Your task to perform on an android device: Open eBay Image 0: 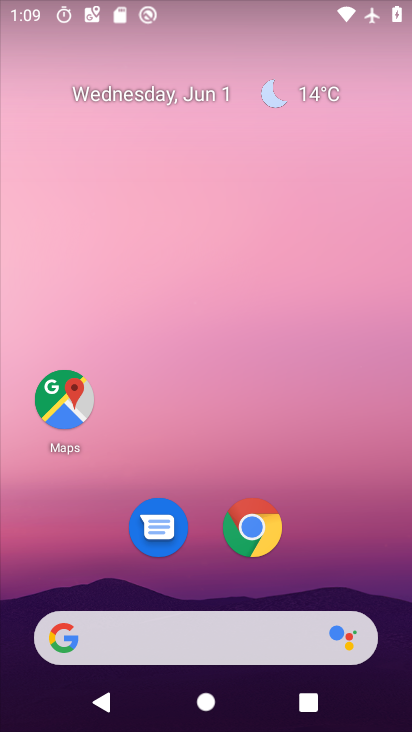
Step 0: click (263, 519)
Your task to perform on an android device: Open eBay Image 1: 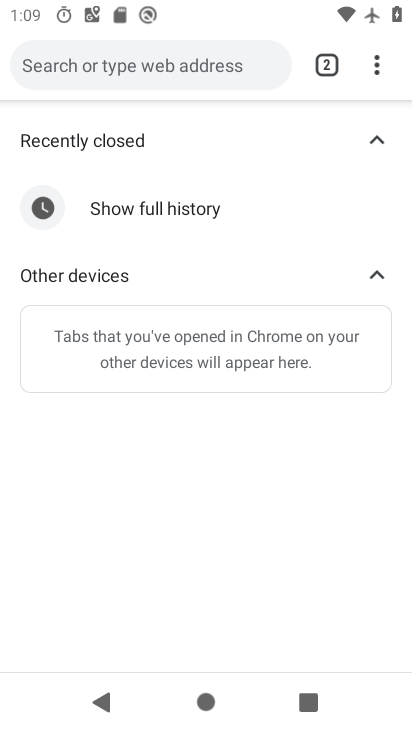
Step 1: click (71, 74)
Your task to perform on an android device: Open eBay Image 2: 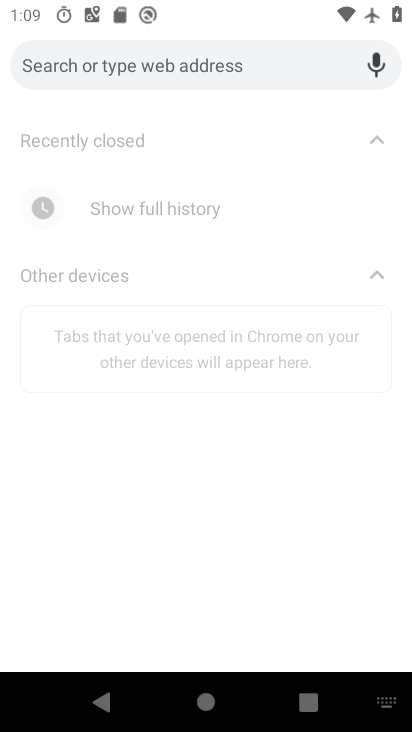
Step 2: type "ebay"
Your task to perform on an android device: Open eBay Image 3: 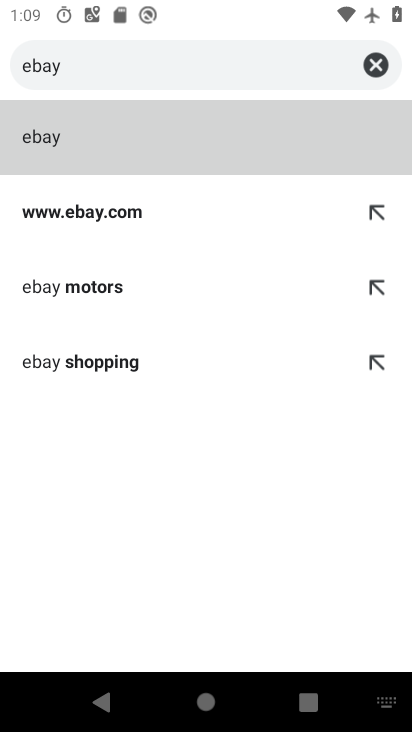
Step 3: click (39, 139)
Your task to perform on an android device: Open eBay Image 4: 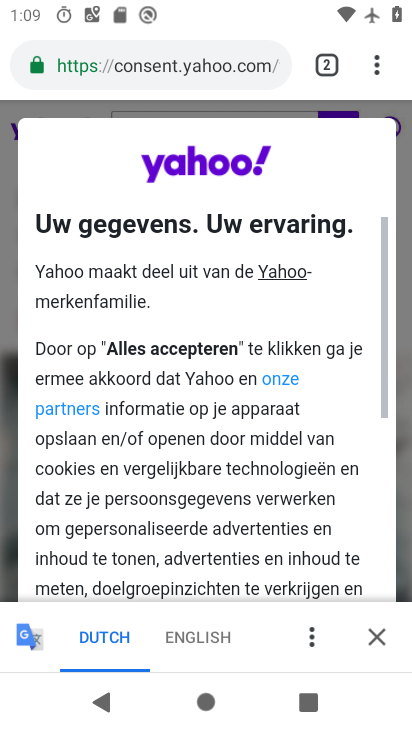
Step 4: drag from (176, 414) to (148, 93)
Your task to perform on an android device: Open eBay Image 5: 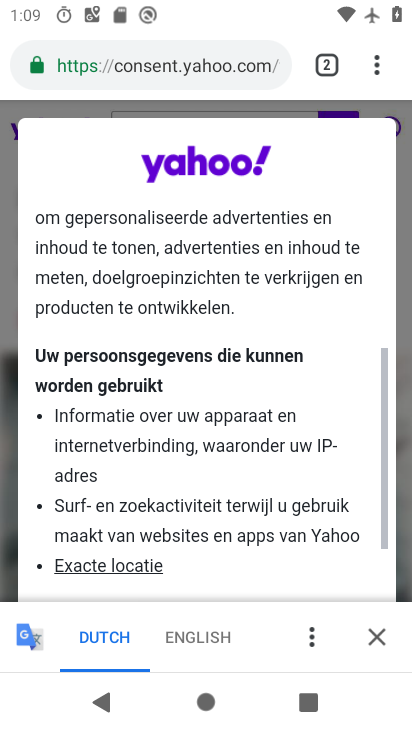
Step 5: drag from (181, 501) to (161, 117)
Your task to perform on an android device: Open eBay Image 6: 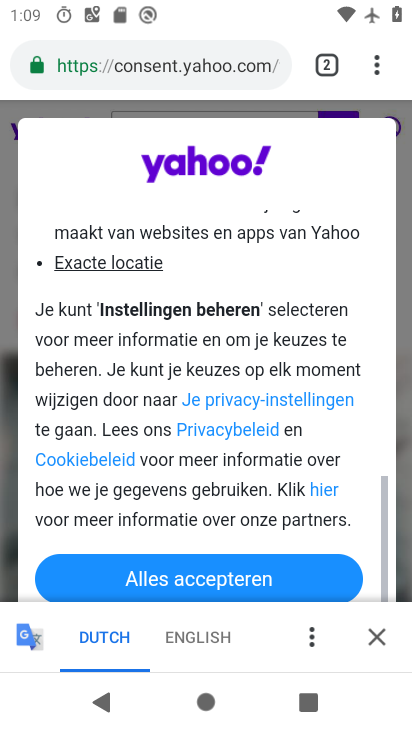
Step 6: click (166, 577)
Your task to perform on an android device: Open eBay Image 7: 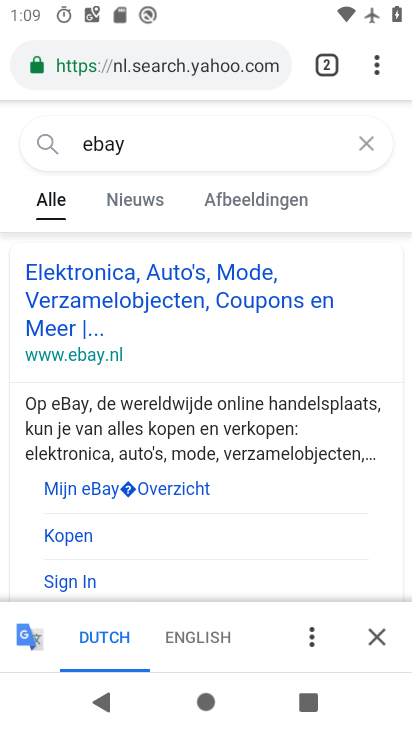
Step 7: click (69, 356)
Your task to perform on an android device: Open eBay Image 8: 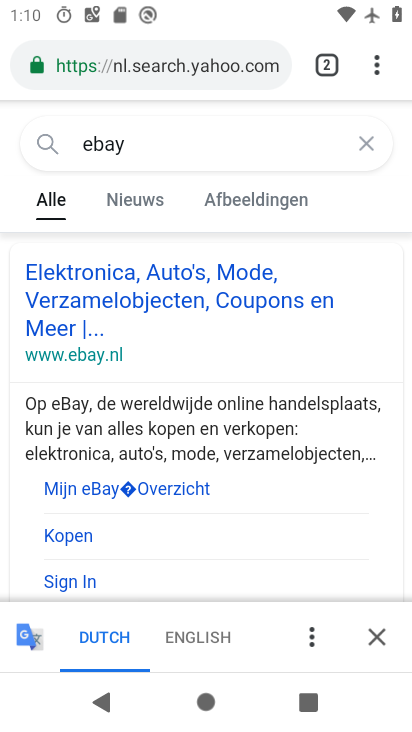
Step 8: click (40, 363)
Your task to perform on an android device: Open eBay Image 9: 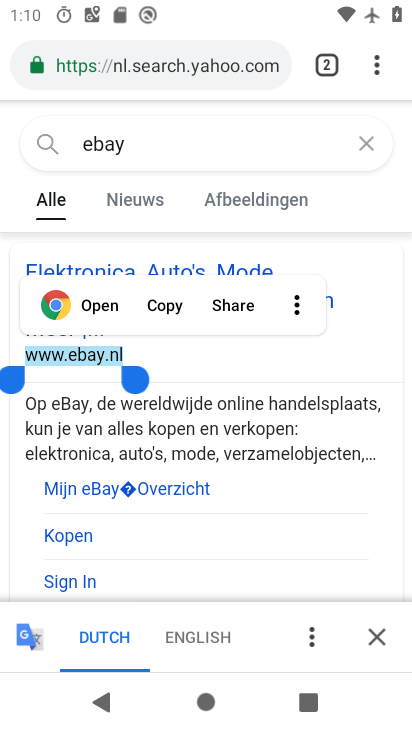
Step 9: click (91, 353)
Your task to perform on an android device: Open eBay Image 10: 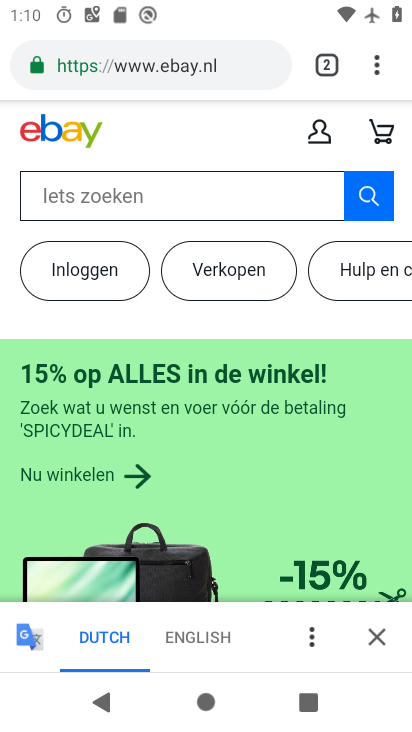
Step 10: task complete